Your task to perform on an android device: change the upload size in google photos Image 0: 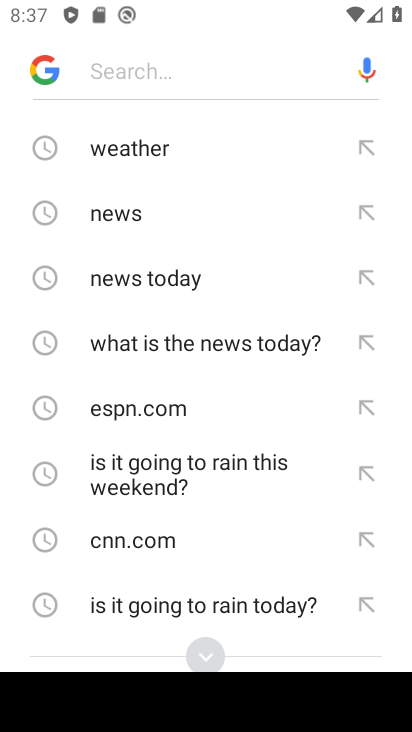
Step 0: press home button
Your task to perform on an android device: change the upload size in google photos Image 1: 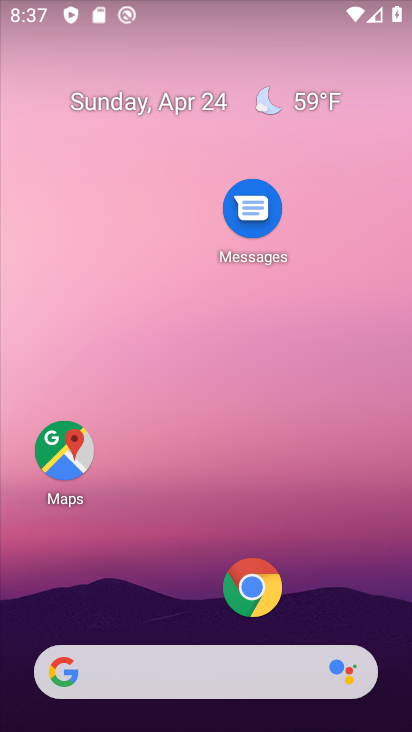
Step 1: drag from (139, 600) to (178, 1)
Your task to perform on an android device: change the upload size in google photos Image 2: 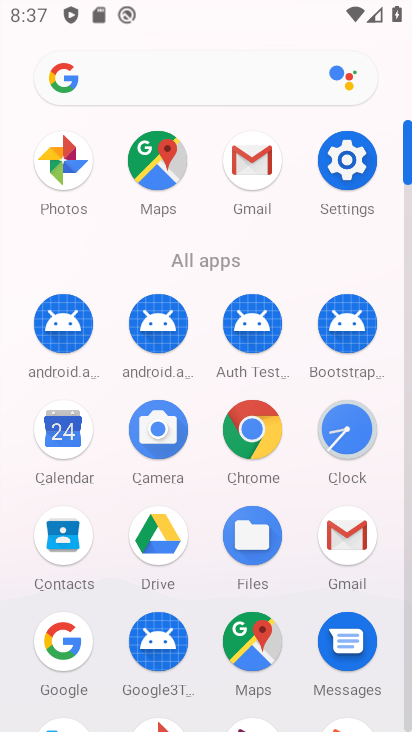
Step 2: drag from (199, 560) to (228, 191)
Your task to perform on an android device: change the upload size in google photos Image 3: 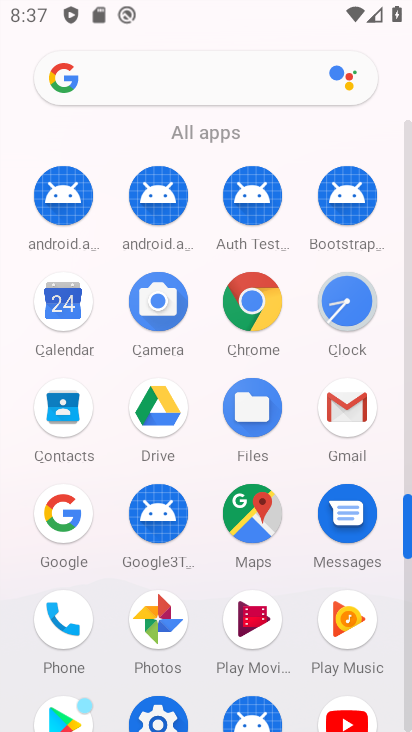
Step 3: click (170, 631)
Your task to perform on an android device: change the upload size in google photos Image 4: 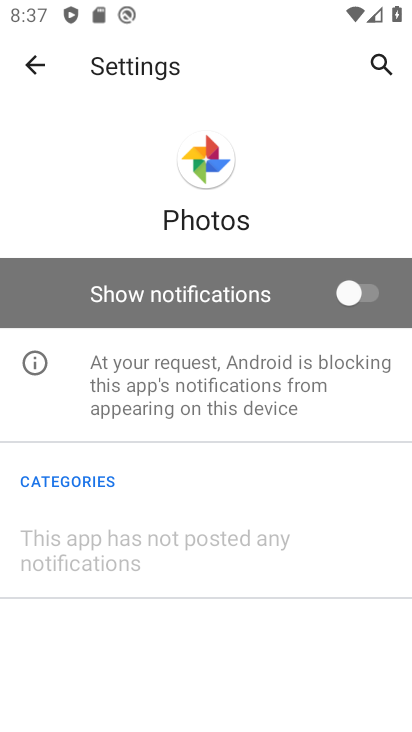
Step 4: click (37, 66)
Your task to perform on an android device: change the upload size in google photos Image 5: 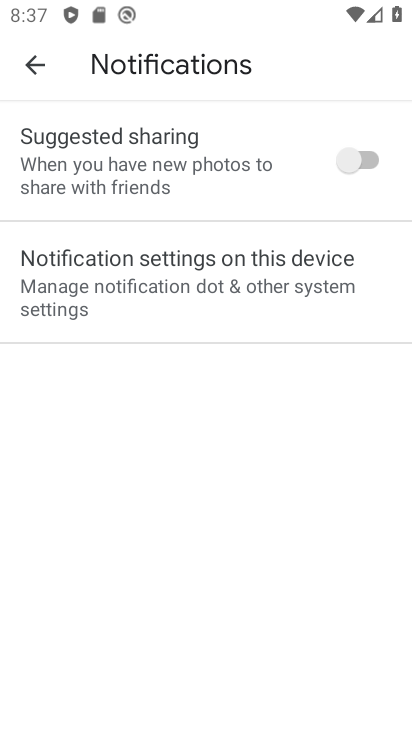
Step 5: click (25, 51)
Your task to perform on an android device: change the upload size in google photos Image 6: 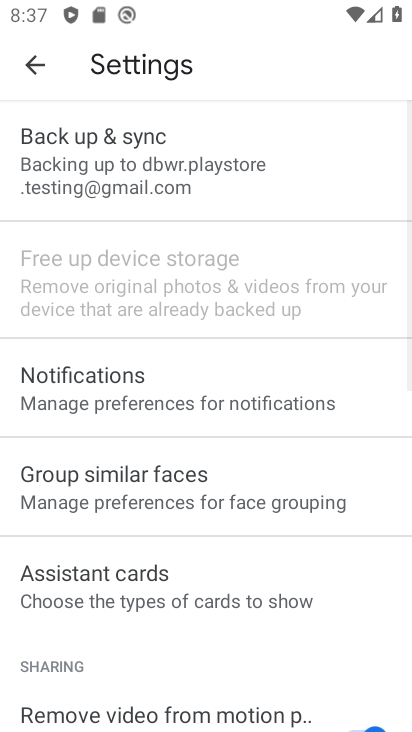
Step 6: click (140, 189)
Your task to perform on an android device: change the upload size in google photos Image 7: 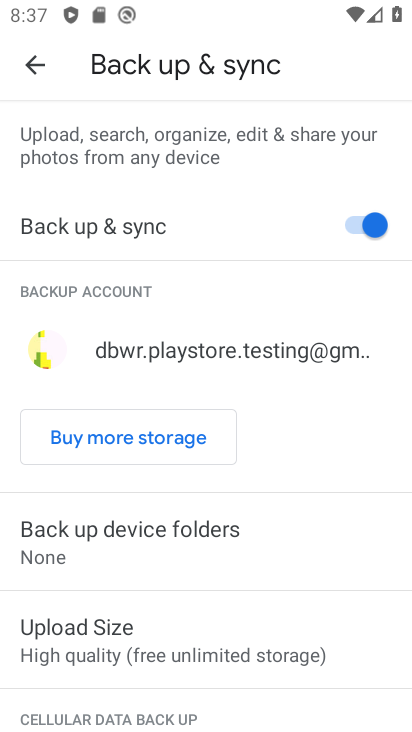
Step 7: click (139, 635)
Your task to perform on an android device: change the upload size in google photos Image 8: 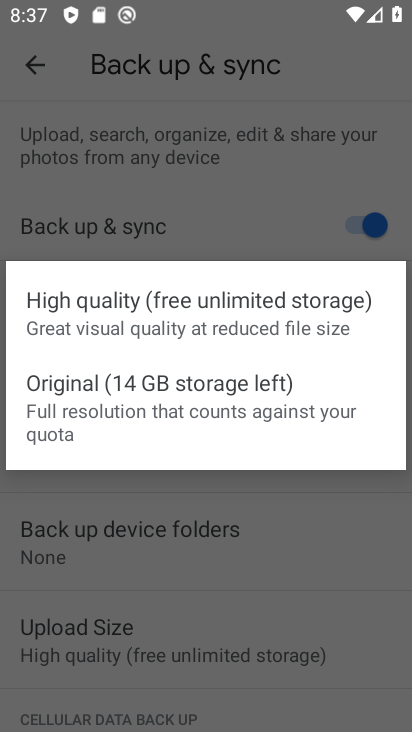
Step 8: click (126, 422)
Your task to perform on an android device: change the upload size in google photos Image 9: 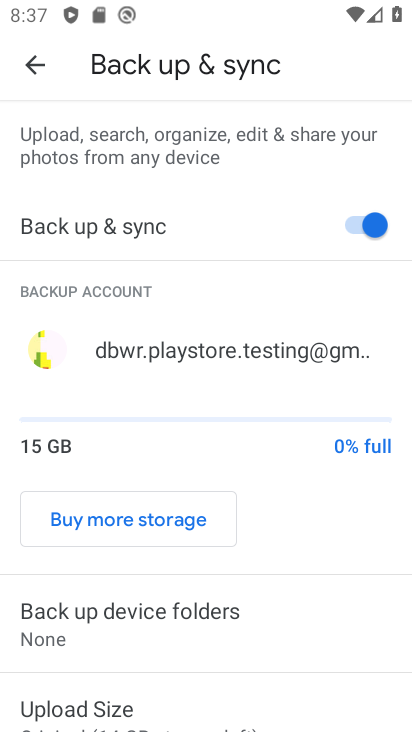
Step 9: task complete